Your task to perform on an android device: open a new tab in the chrome app Image 0: 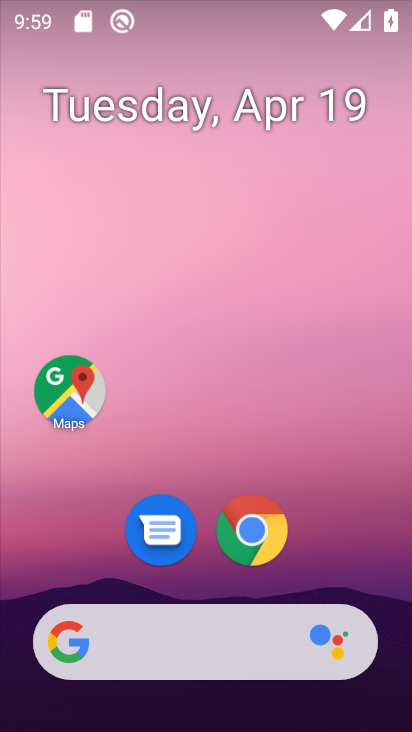
Step 0: drag from (324, 510) to (250, 0)
Your task to perform on an android device: open a new tab in the chrome app Image 1: 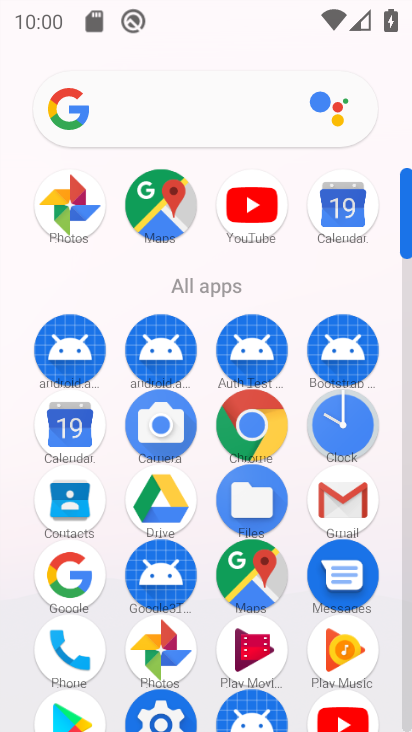
Step 1: click (247, 411)
Your task to perform on an android device: open a new tab in the chrome app Image 2: 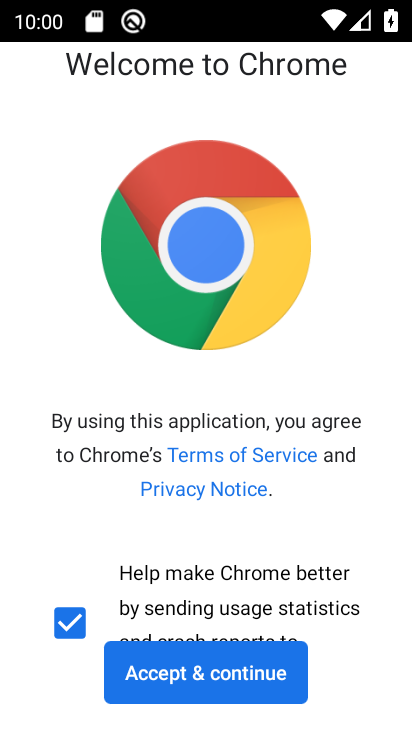
Step 2: click (202, 665)
Your task to perform on an android device: open a new tab in the chrome app Image 3: 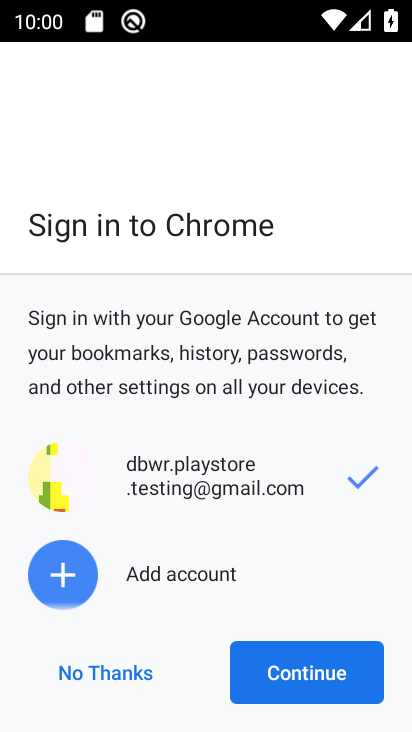
Step 3: click (306, 683)
Your task to perform on an android device: open a new tab in the chrome app Image 4: 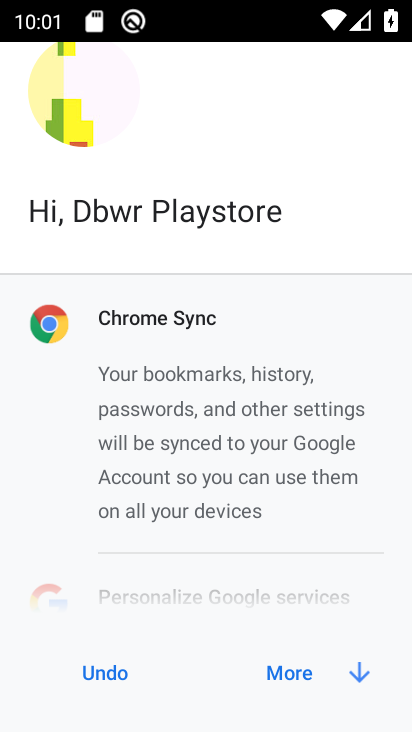
Step 4: click (315, 672)
Your task to perform on an android device: open a new tab in the chrome app Image 5: 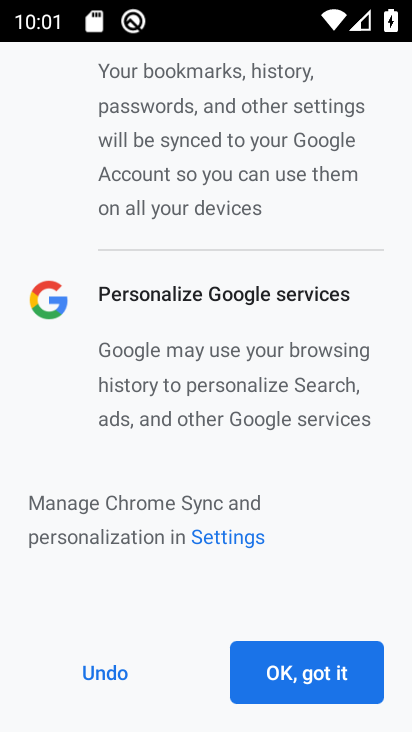
Step 5: click (315, 672)
Your task to perform on an android device: open a new tab in the chrome app Image 6: 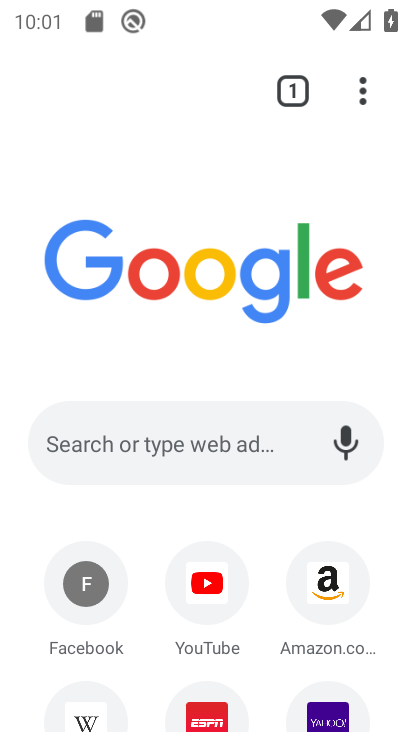
Step 6: drag from (370, 94) to (407, 96)
Your task to perform on an android device: open a new tab in the chrome app Image 7: 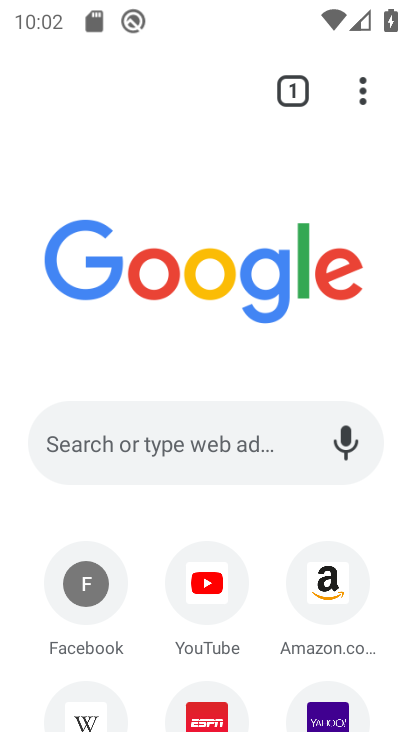
Step 7: click (121, 155)
Your task to perform on an android device: open a new tab in the chrome app Image 8: 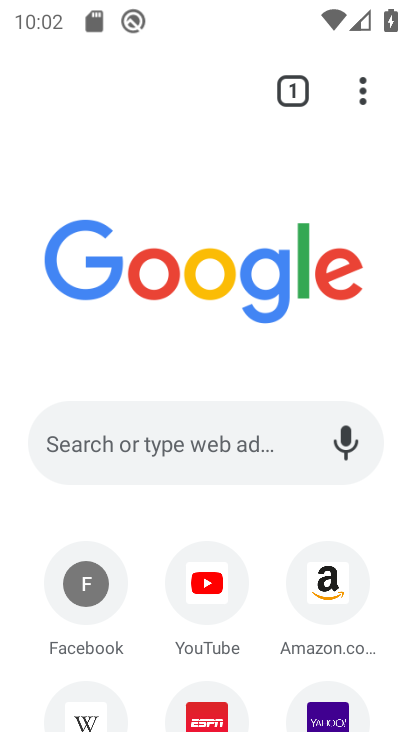
Step 8: click (354, 95)
Your task to perform on an android device: open a new tab in the chrome app Image 9: 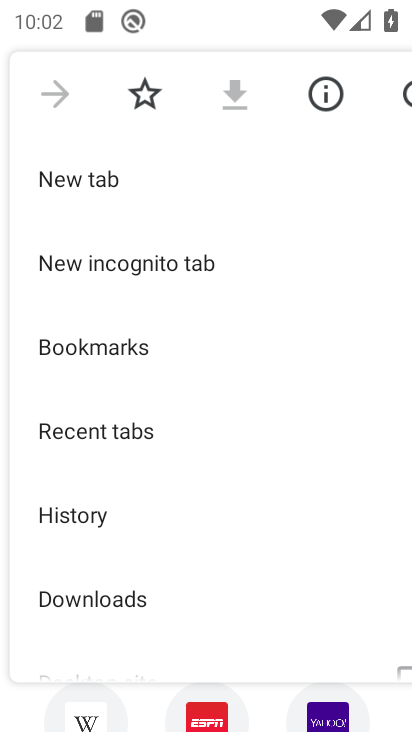
Step 9: click (87, 171)
Your task to perform on an android device: open a new tab in the chrome app Image 10: 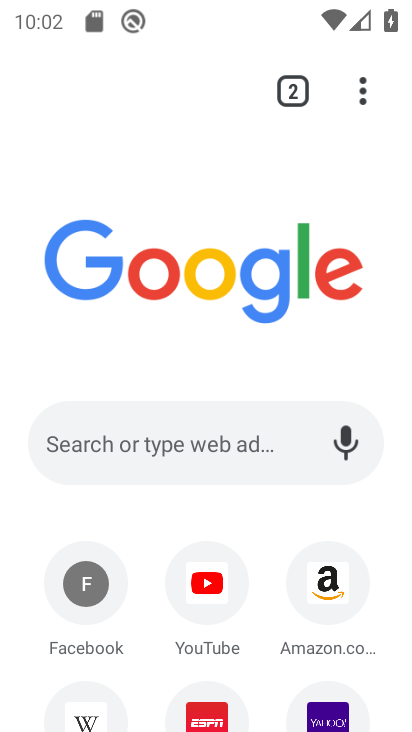
Step 10: task complete